Your task to perform on an android device: turn notification dots on Image 0: 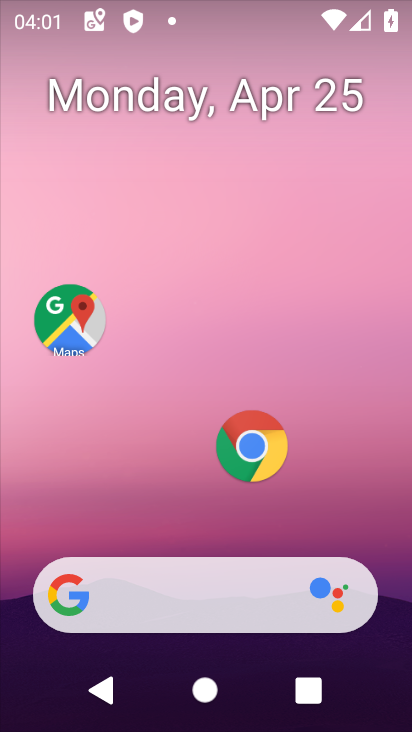
Step 0: click (132, 541)
Your task to perform on an android device: turn notification dots on Image 1: 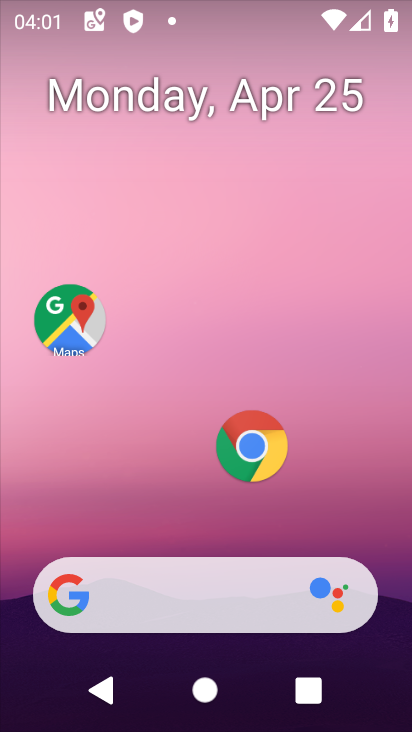
Step 1: drag from (132, 541) to (191, 167)
Your task to perform on an android device: turn notification dots on Image 2: 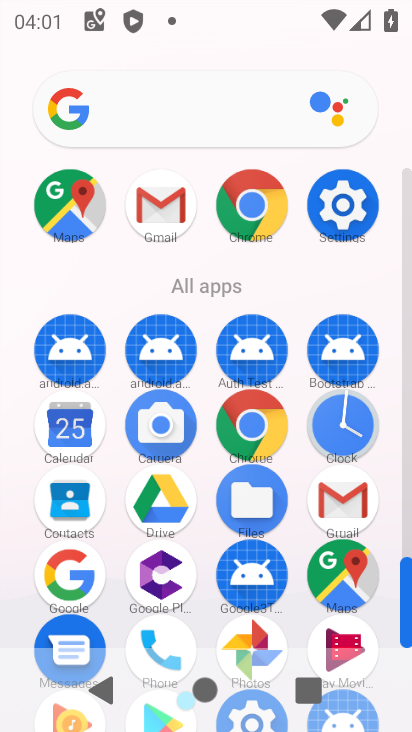
Step 2: click (328, 215)
Your task to perform on an android device: turn notification dots on Image 3: 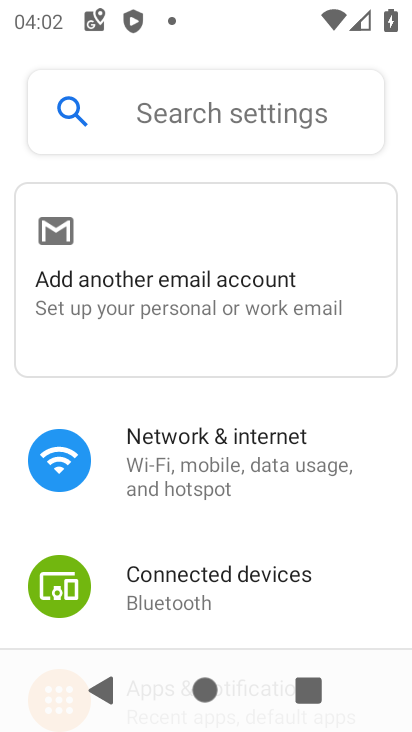
Step 3: drag from (165, 596) to (204, 191)
Your task to perform on an android device: turn notification dots on Image 4: 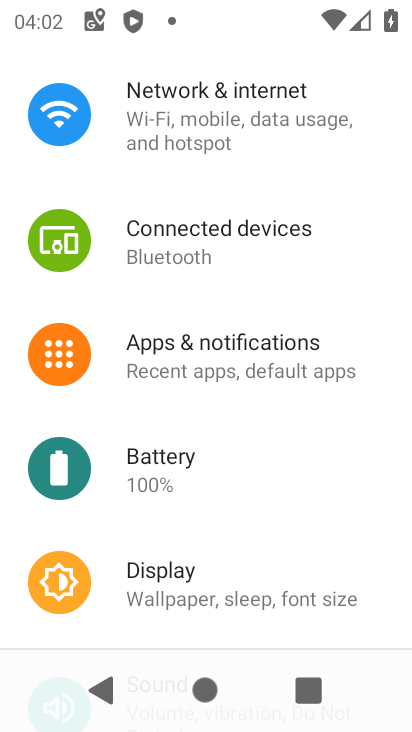
Step 4: click (145, 348)
Your task to perform on an android device: turn notification dots on Image 5: 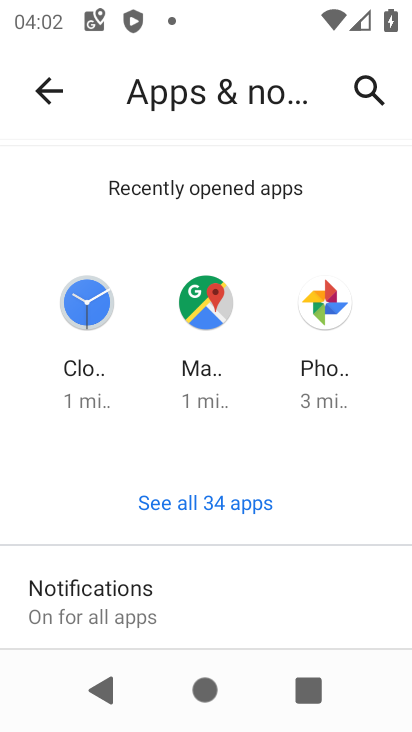
Step 5: drag from (94, 621) to (134, 253)
Your task to perform on an android device: turn notification dots on Image 6: 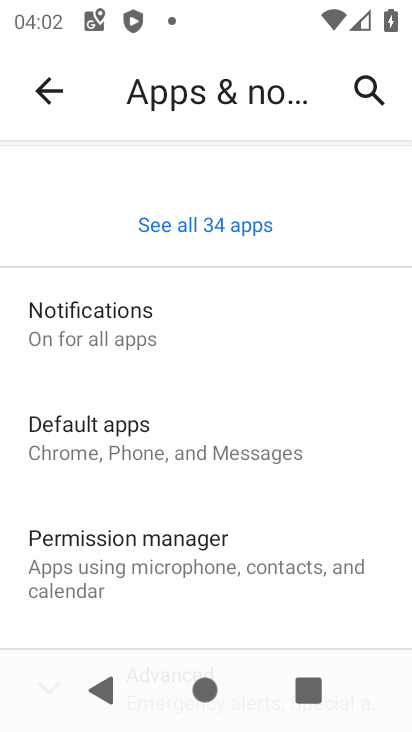
Step 6: drag from (62, 629) to (105, 331)
Your task to perform on an android device: turn notification dots on Image 7: 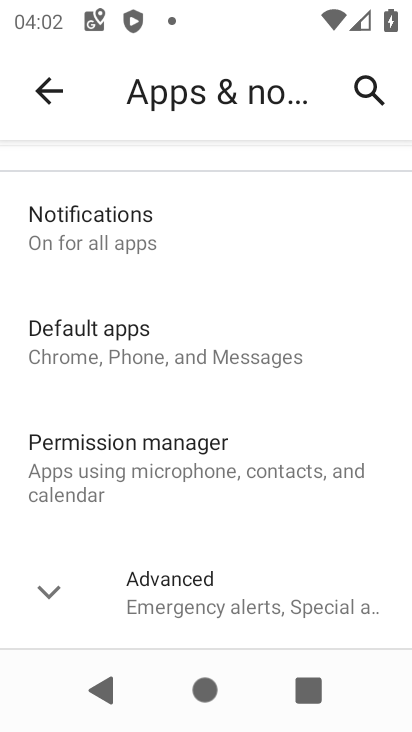
Step 7: click (157, 594)
Your task to perform on an android device: turn notification dots on Image 8: 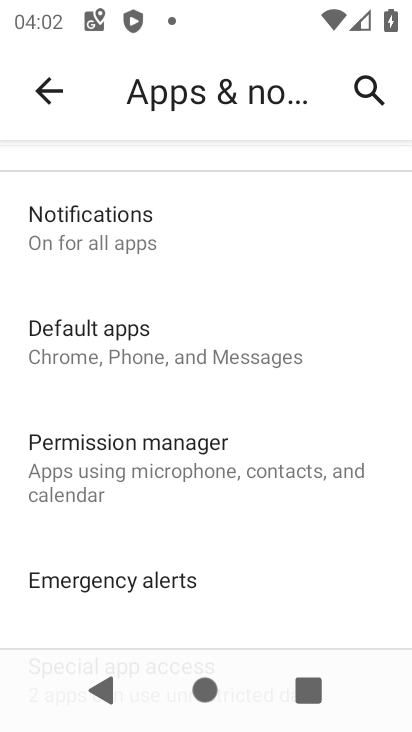
Step 8: drag from (157, 594) to (160, 192)
Your task to perform on an android device: turn notification dots on Image 9: 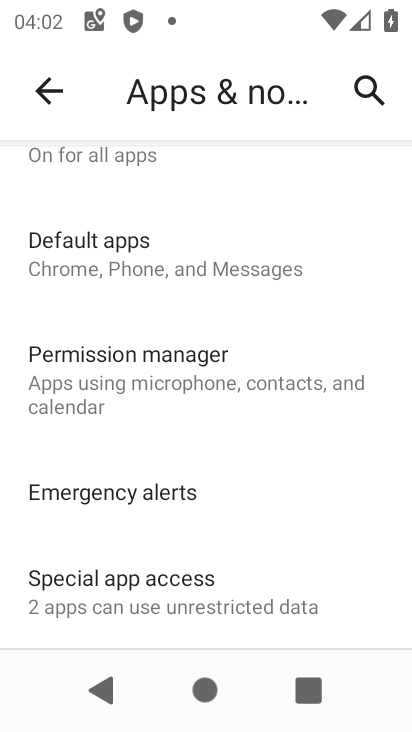
Step 9: drag from (209, 219) to (221, 552)
Your task to perform on an android device: turn notification dots on Image 10: 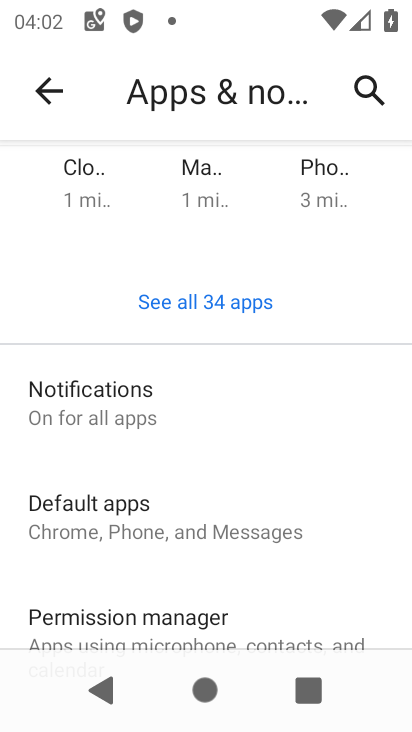
Step 10: click (123, 382)
Your task to perform on an android device: turn notification dots on Image 11: 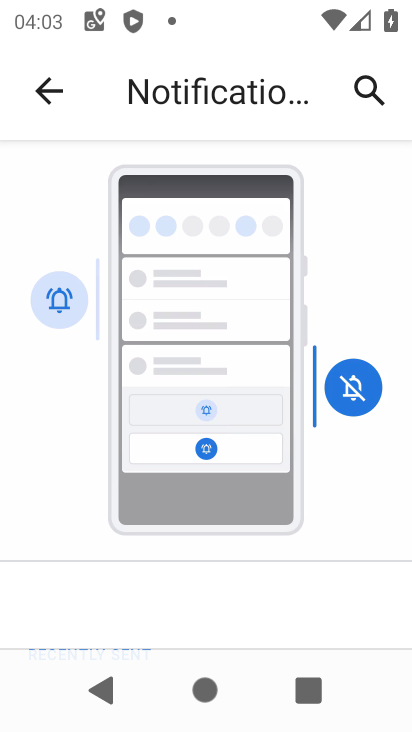
Step 11: drag from (177, 576) to (226, 10)
Your task to perform on an android device: turn notification dots on Image 12: 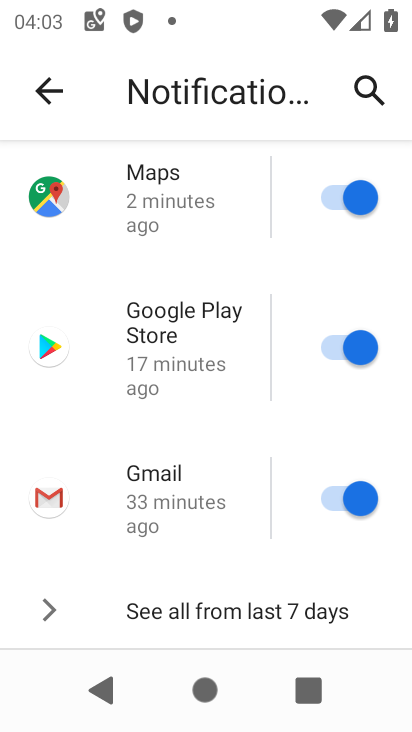
Step 12: drag from (49, 526) to (289, 73)
Your task to perform on an android device: turn notification dots on Image 13: 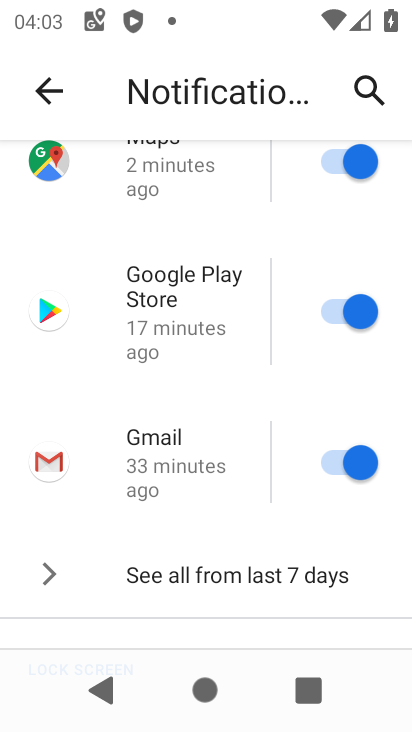
Step 13: drag from (143, 545) to (178, 6)
Your task to perform on an android device: turn notification dots on Image 14: 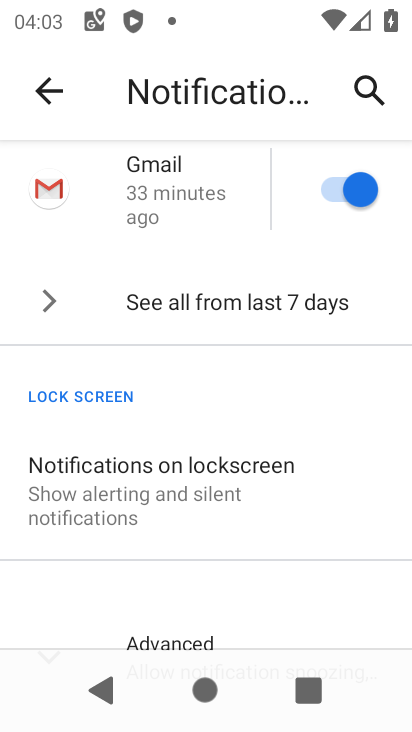
Step 14: click (176, 642)
Your task to perform on an android device: turn notification dots on Image 15: 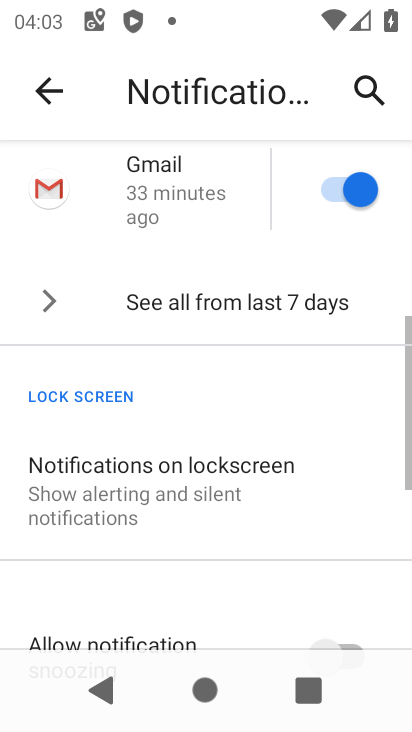
Step 15: task complete